Your task to perform on an android device: set default search engine in the chrome app Image 0: 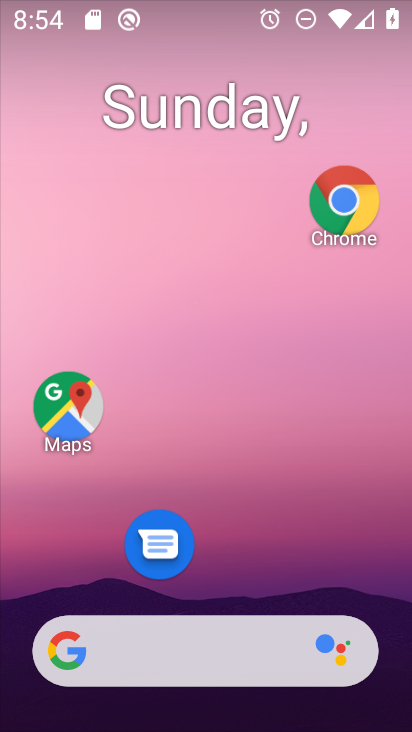
Step 0: click (335, 215)
Your task to perform on an android device: set default search engine in the chrome app Image 1: 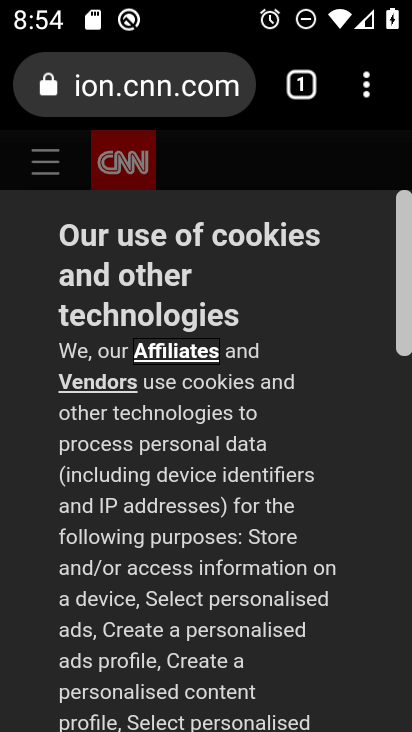
Step 1: click (375, 93)
Your task to perform on an android device: set default search engine in the chrome app Image 2: 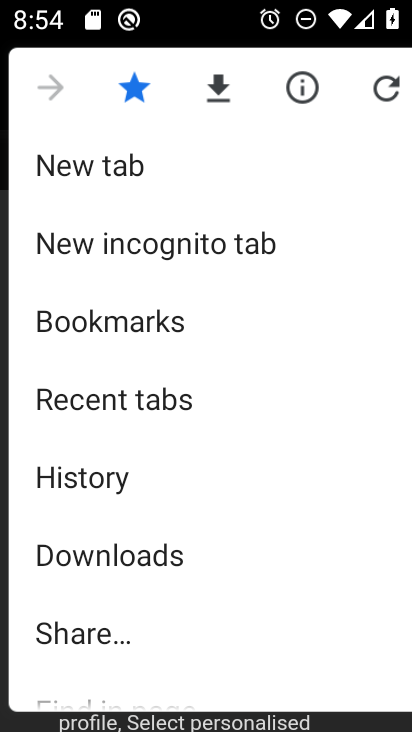
Step 2: drag from (144, 637) to (238, 218)
Your task to perform on an android device: set default search engine in the chrome app Image 3: 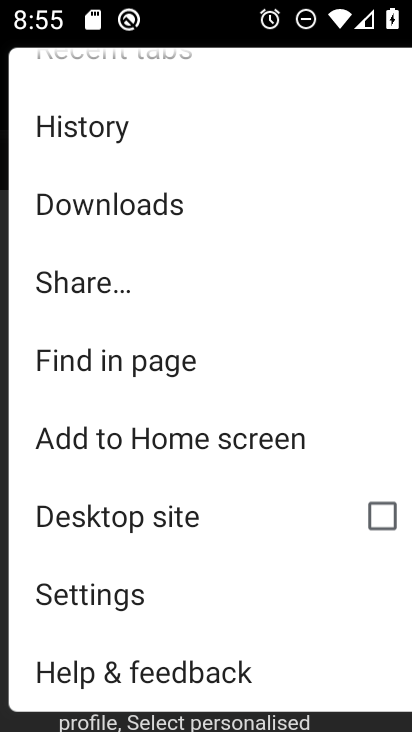
Step 3: click (115, 598)
Your task to perform on an android device: set default search engine in the chrome app Image 4: 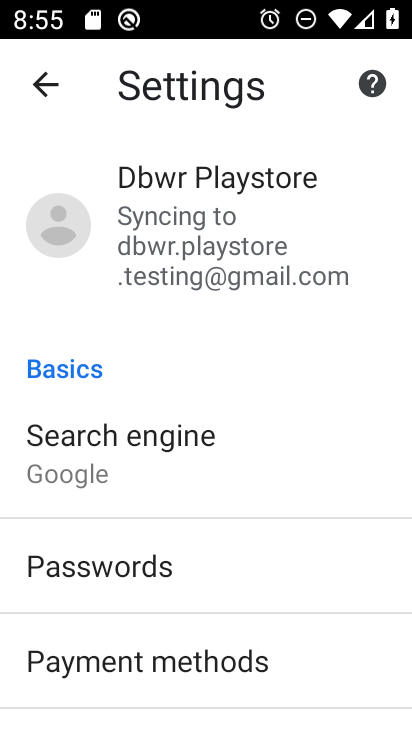
Step 4: click (143, 447)
Your task to perform on an android device: set default search engine in the chrome app Image 5: 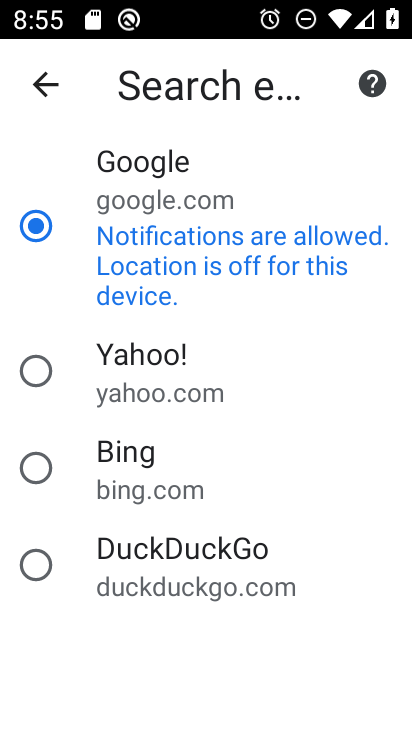
Step 5: click (141, 370)
Your task to perform on an android device: set default search engine in the chrome app Image 6: 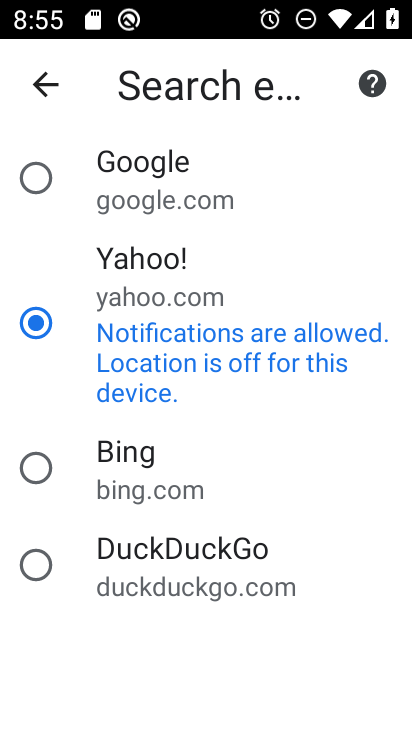
Step 6: task complete